Your task to perform on an android device: turn off priority inbox in the gmail app Image 0: 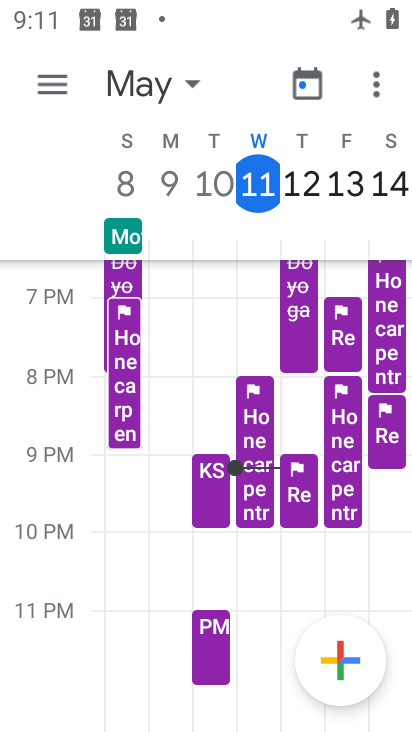
Step 0: press home button
Your task to perform on an android device: turn off priority inbox in the gmail app Image 1: 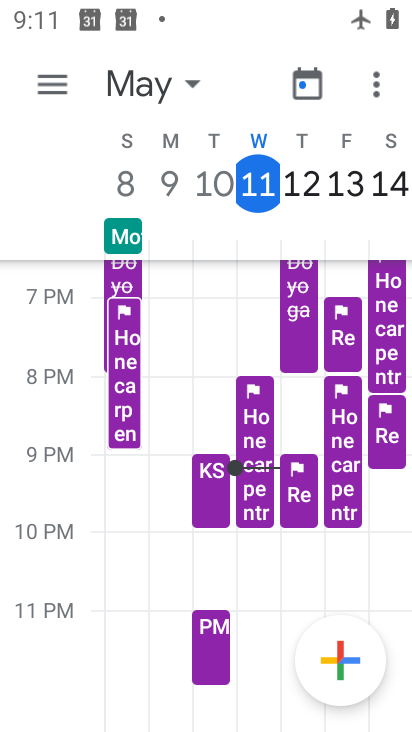
Step 1: press home button
Your task to perform on an android device: turn off priority inbox in the gmail app Image 2: 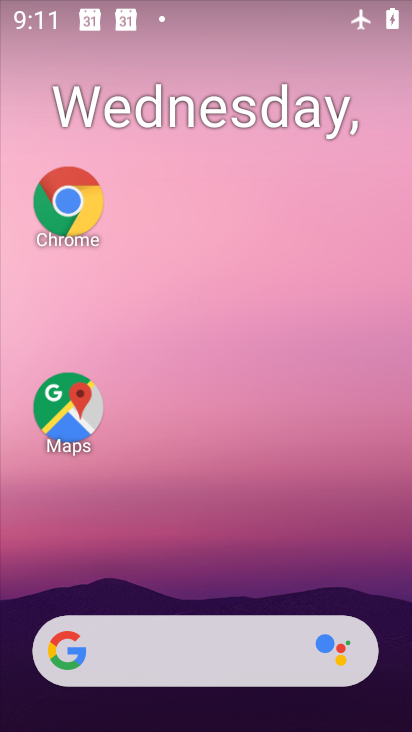
Step 2: drag from (231, 599) to (255, 1)
Your task to perform on an android device: turn off priority inbox in the gmail app Image 3: 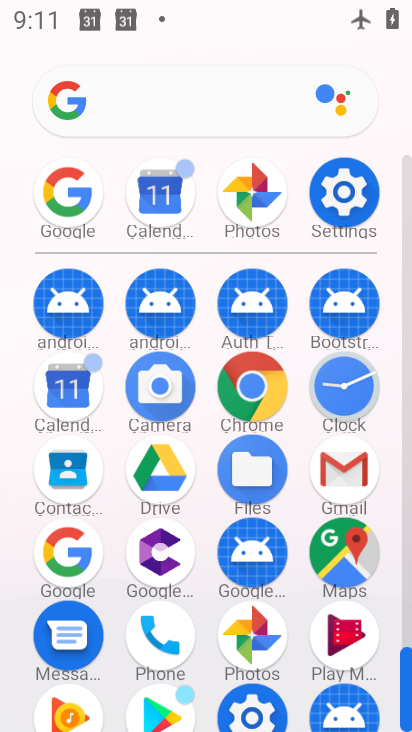
Step 3: click (331, 470)
Your task to perform on an android device: turn off priority inbox in the gmail app Image 4: 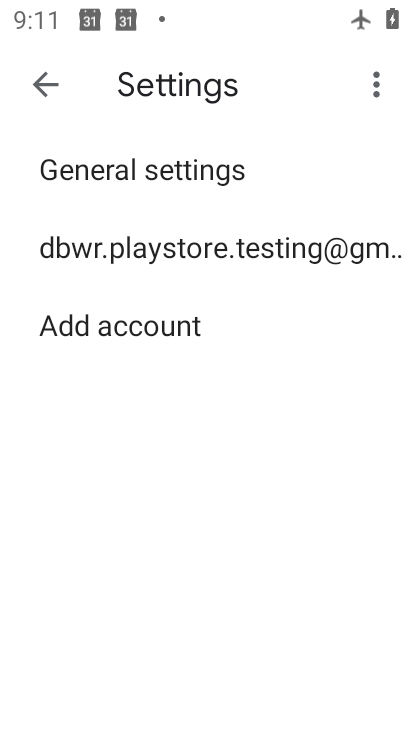
Step 4: click (167, 246)
Your task to perform on an android device: turn off priority inbox in the gmail app Image 5: 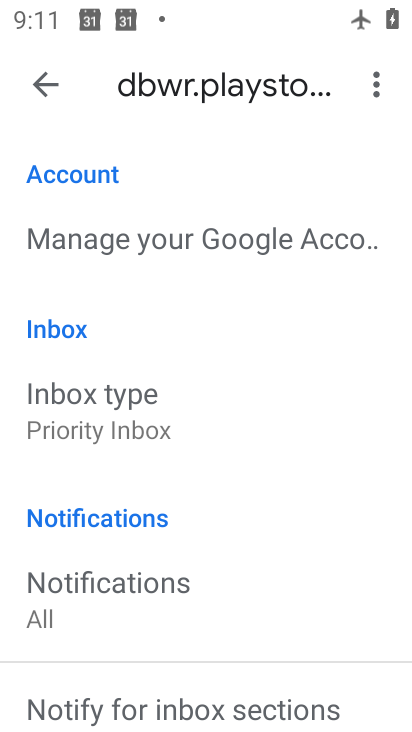
Step 5: click (110, 392)
Your task to perform on an android device: turn off priority inbox in the gmail app Image 6: 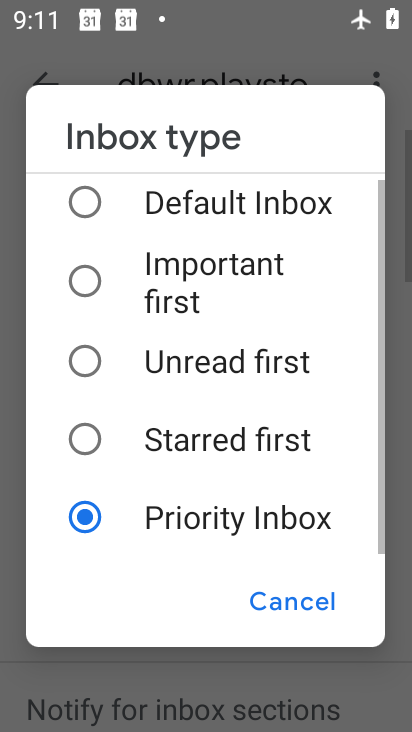
Step 6: click (151, 438)
Your task to perform on an android device: turn off priority inbox in the gmail app Image 7: 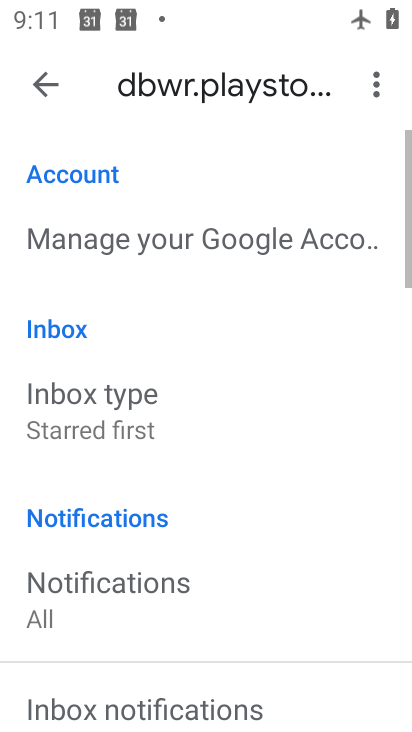
Step 7: task complete